Your task to perform on an android device: add a contact in the contacts app Image 0: 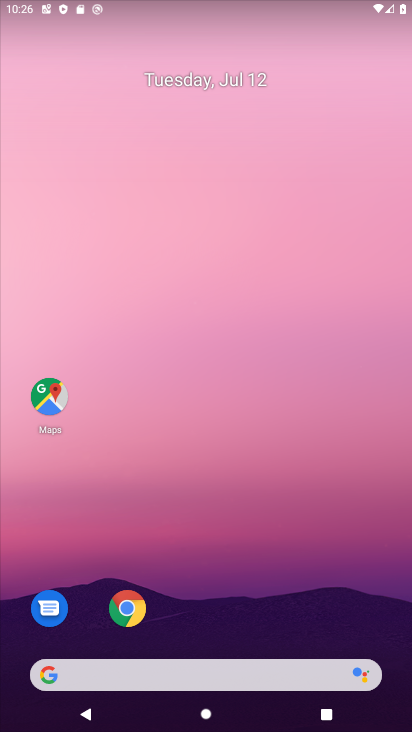
Step 0: drag from (273, 616) to (344, 53)
Your task to perform on an android device: add a contact in the contacts app Image 1: 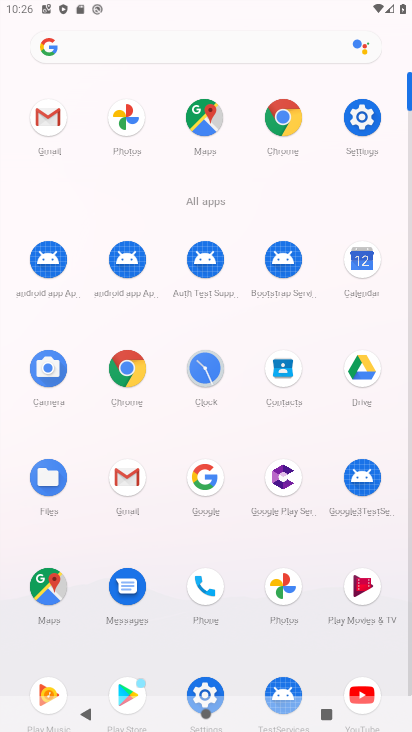
Step 1: click (277, 370)
Your task to perform on an android device: add a contact in the contacts app Image 2: 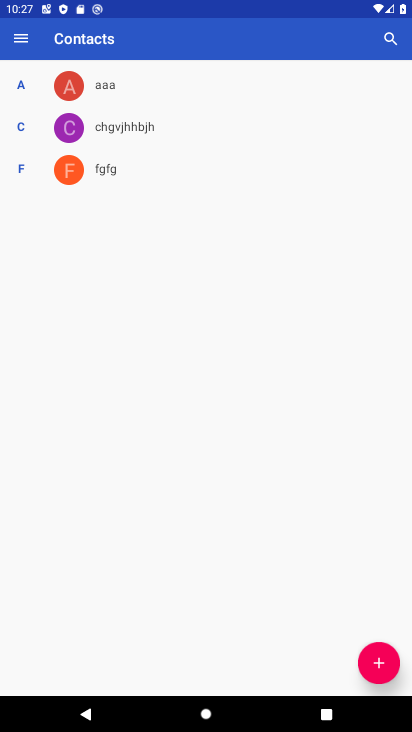
Step 2: click (383, 655)
Your task to perform on an android device: add a contact in the contacts app Image 3: 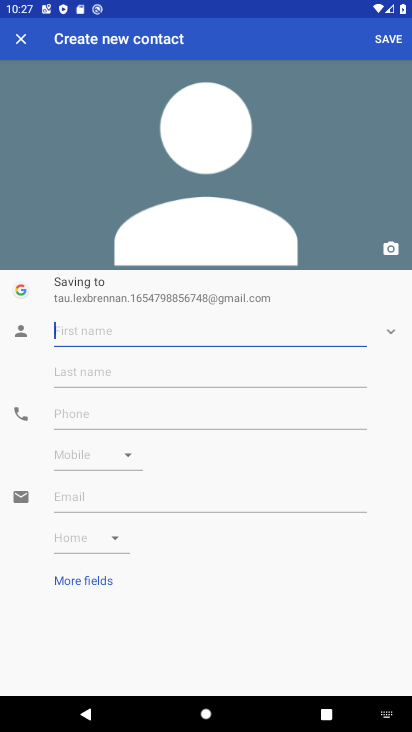
Step 3: type "th"
Your task to perform on an android device: add a contact in the contacts app Image 4: 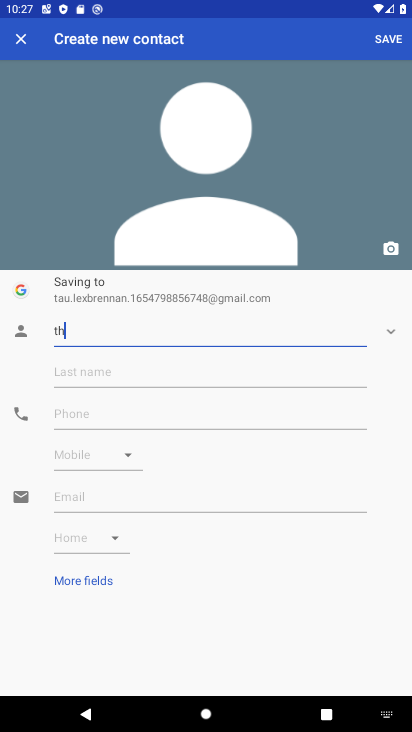
Step 4: click (84, 413)
Your task to perform on an android device: add a contact in the contacts app Image 5: 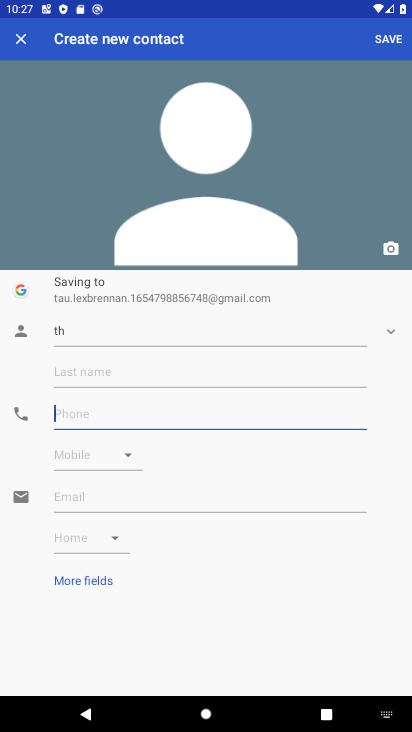
Step 5: type "8907654321"
Your task to perform on an android device: add a contact in the contacts app Image 6: 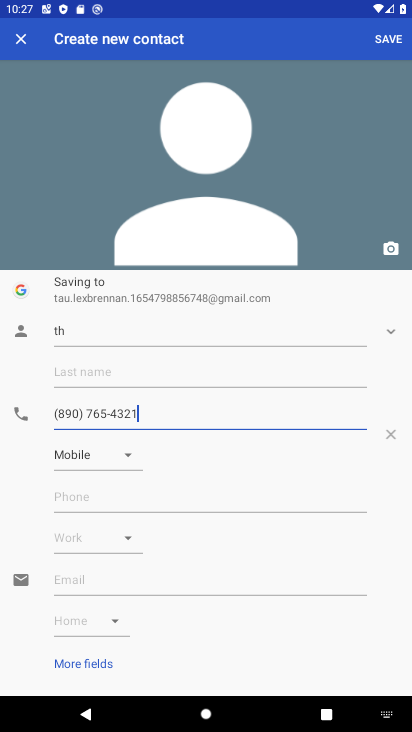
Step 6: click (387, 33)
Your task to perform on an android device: add a contact in the contacts app Image 7: 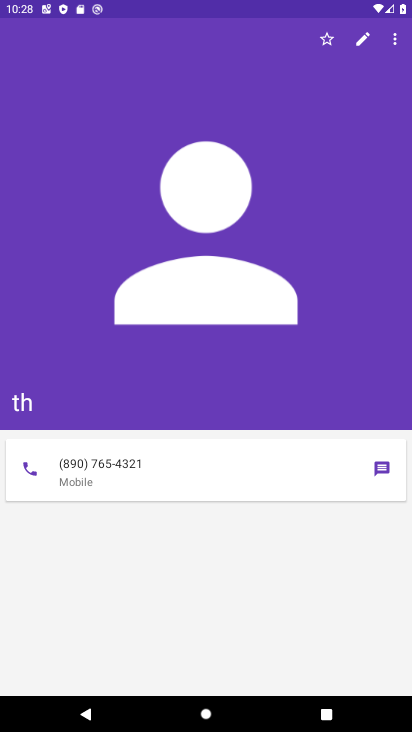
Step 7: task complete